Your task to perform on an android device: set the stopwatch Image 0: 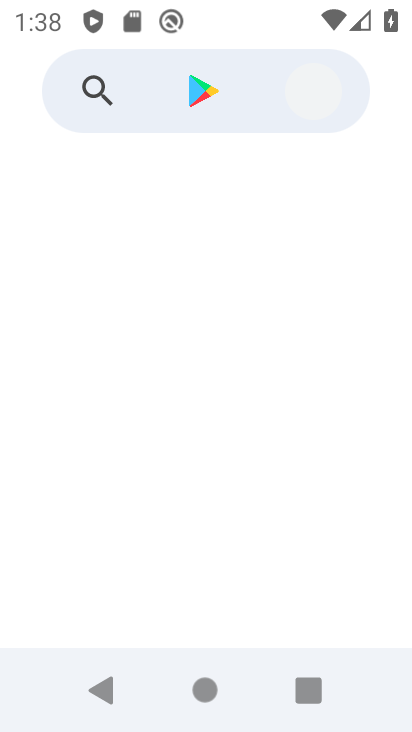
Step 0: press home button
Your task to perform on an android device: set the stopwatch Image 1: 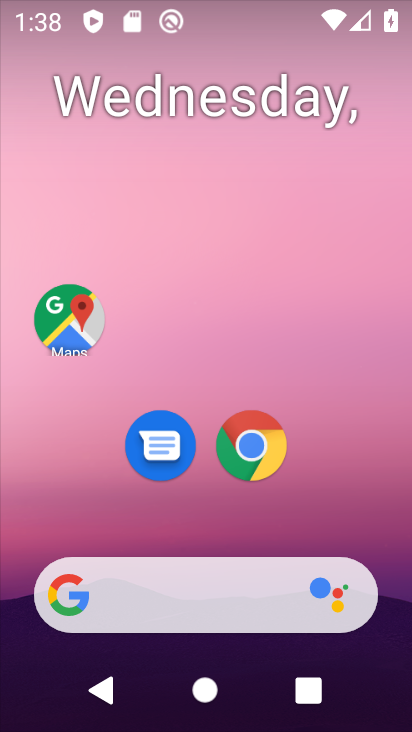
Step 1: drag from (339, 501) to (342, 69)
Your task to perform on an android device: set the stopwatch Image 2: 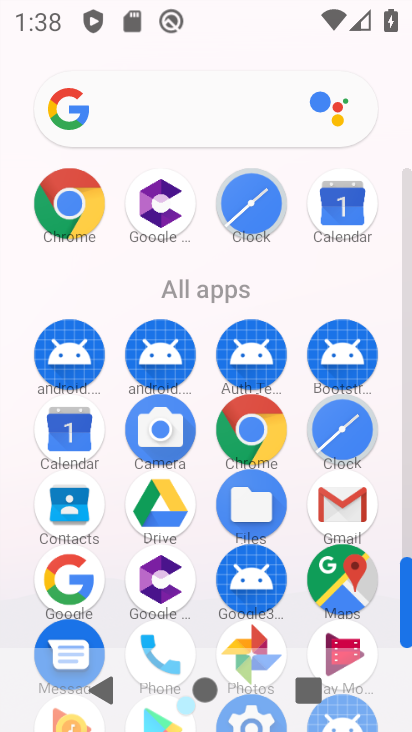
Step 2: click (240, 210)
Your task to perform on an android device: set the stopwatch Image 3: 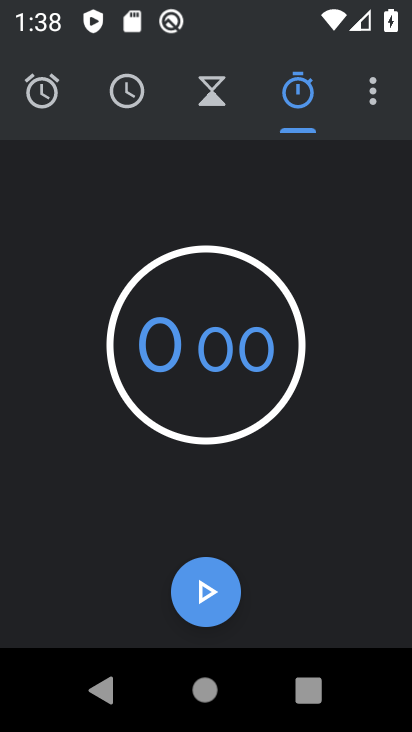
Step 3: click (202, 595)
Your task to perform on an android device: set the stopwatch Image 4: 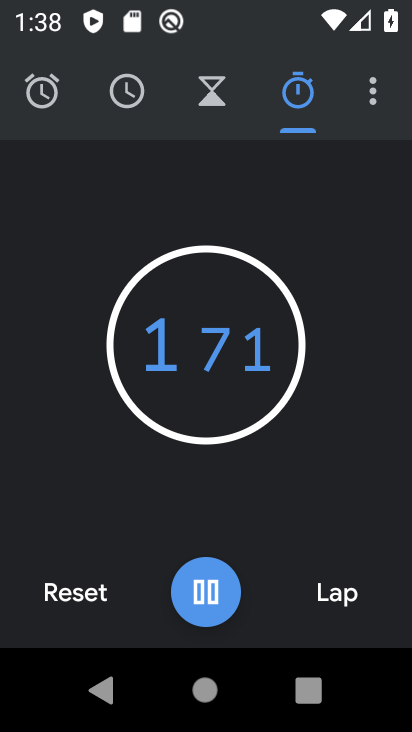
Step 4: task complete